Your task to perform on an android device: open app "Adobe Acrobat Reader: Edit PDF" (install if not already installed) and enter user name: "arthritis@inbox.com" and password: "scythes" Image 0: 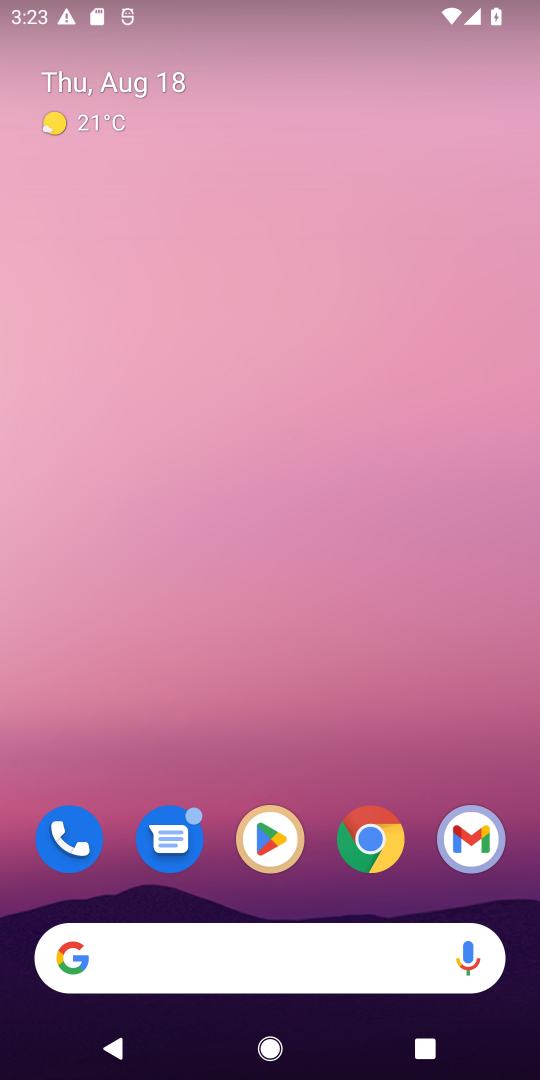
Step 0: click (277, 848)
Your task to perform on an android device: open app "Adobe Acrobat Reader: Edit PDF" (install if not already installed) and enter user name: "arthritis@inbox.com" and password: "scythes" Image 1: 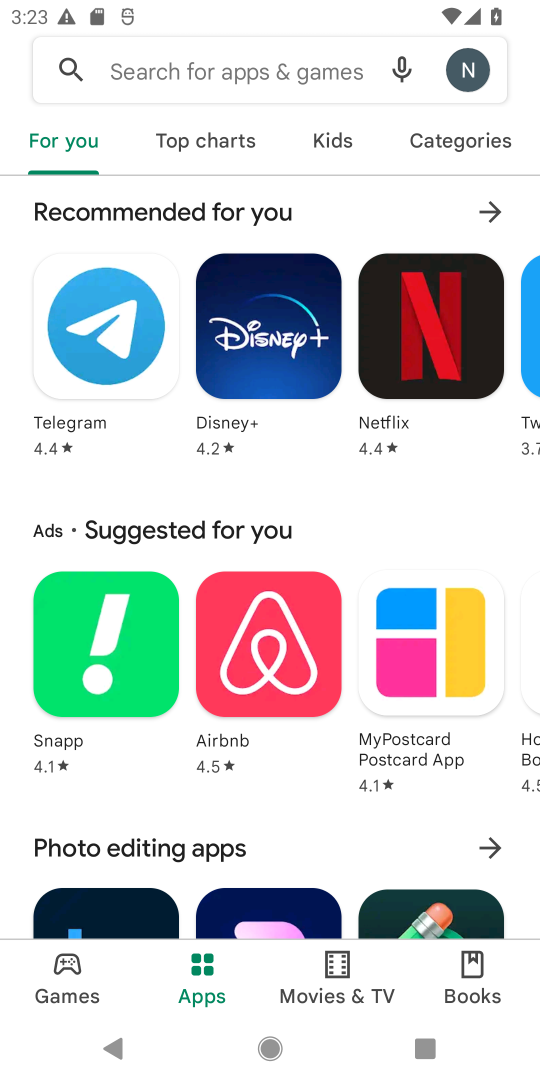
Step 1: click (147, 75)
Your task to perform on an android device: open app "Adobe Acrobat Reader: Edit PDF" (install if not already installed) and enter user name: "arthritis@inbox.com" and password: "scythes" Image 2: 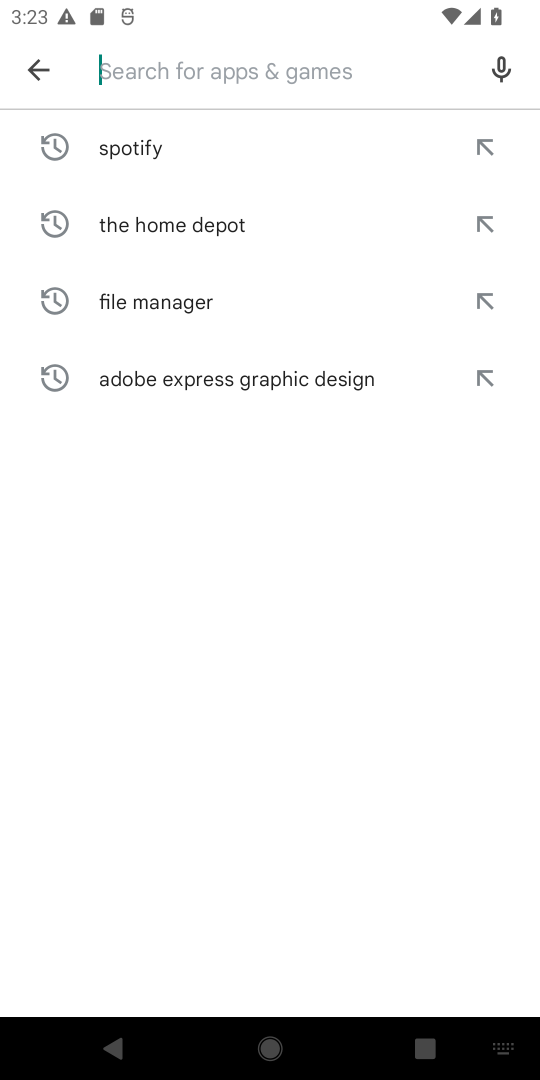
Step 2: type "Adobe Acrobat Reader: Edit PDF"
Your task to perform on an android device: open app "Adobe Acrobat Reader: Edit PDF" (install if not already installed) and enter user name: "arthritis@inbox.com" and password: "scythes" Image 3: 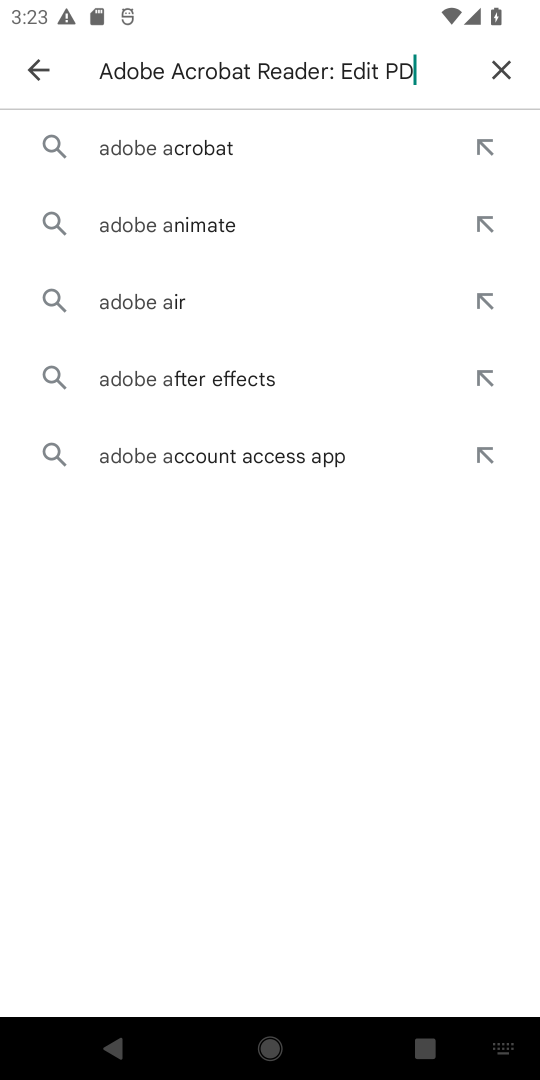
Step 3: type ""
Your task to perform on an android device: open app "Adobe Acrobat Reader: Edit PDF" (install if not already installed) and enter user name: "arthritis@inbox.com" and password: "scythes" Image 4: 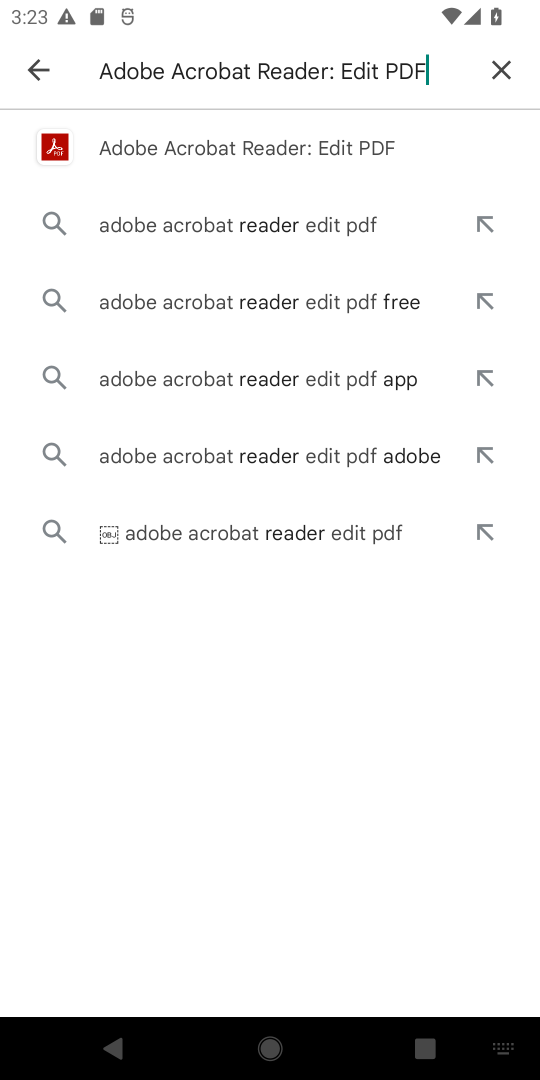
Step 4: click (130, 146)
Your task to perform on an android device: open app "Adobe Acrobat Reader: Edit PDF" (install if not already installed) and enter user name: "arthritis@inbox.com" and password: "scythes" Image 5: 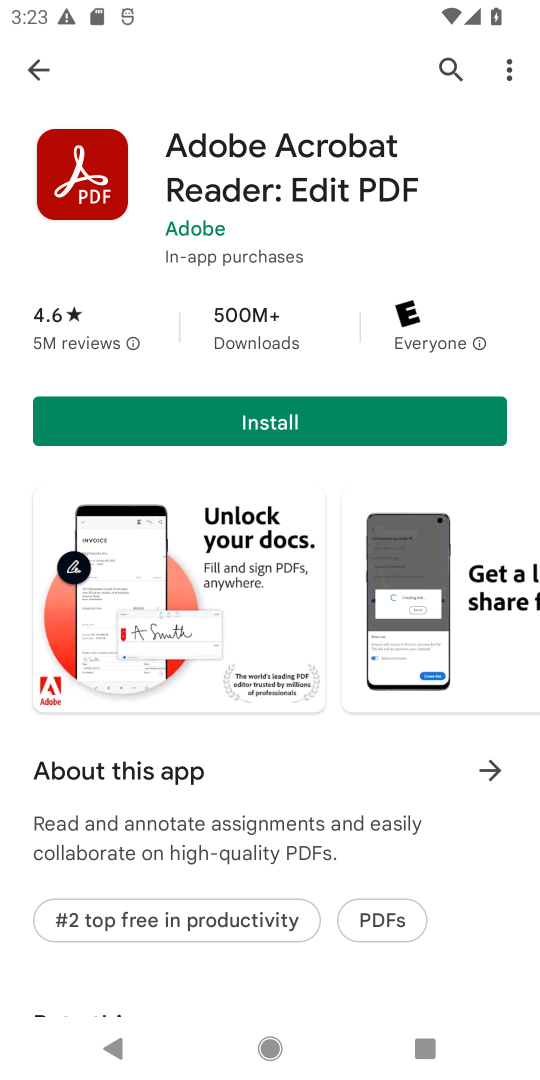
Step 5: click (252, 414)
Your task to perform on an android device: open app "Adobe Acrobat Reader: Edit PDF" (install if not already installed) and enter user name: "arthritis@inbox.com" and password: "scythes" Image 6: 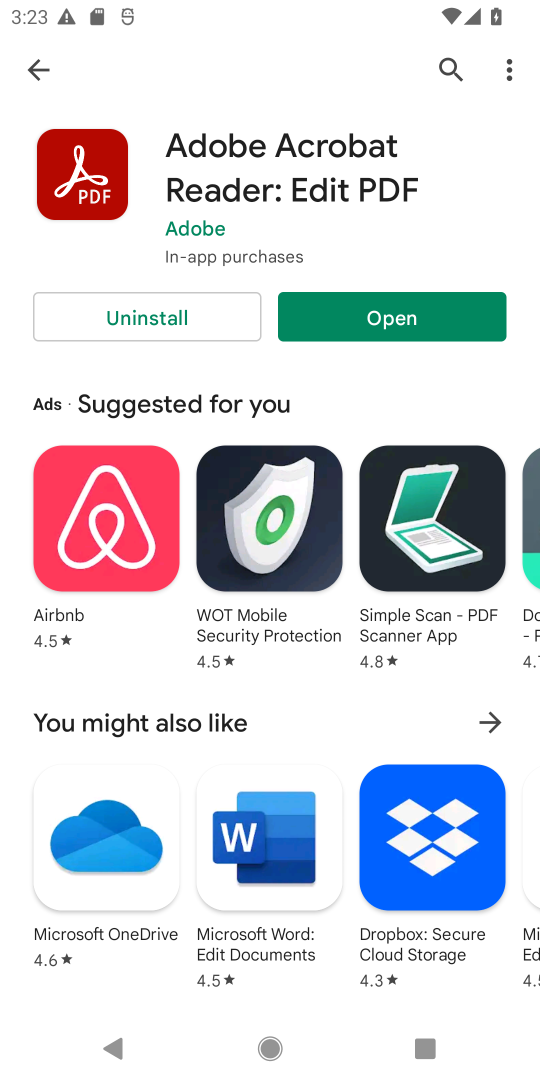
Step 6: click (329, 329)
Your task to perform on an android device: open app "Adobe Acrobat Reader: Edit PDF" (install if not already installed) and enter user name: "arthritis@inbox.com" and password: "scythes" Image 7: 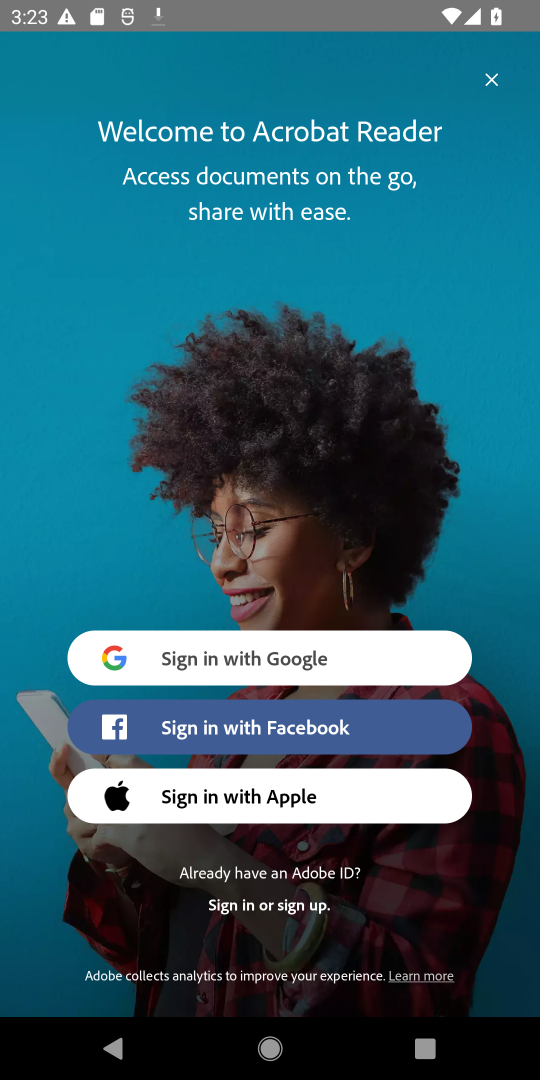
Step 7: click (231, 909)
Your task to perform on an android device: open app "Adobe Acrobat Reader: Edit PDF" (install if not already installed) and enter user name: "arthritis@inbox.com" and password: "scythes" Image 8: 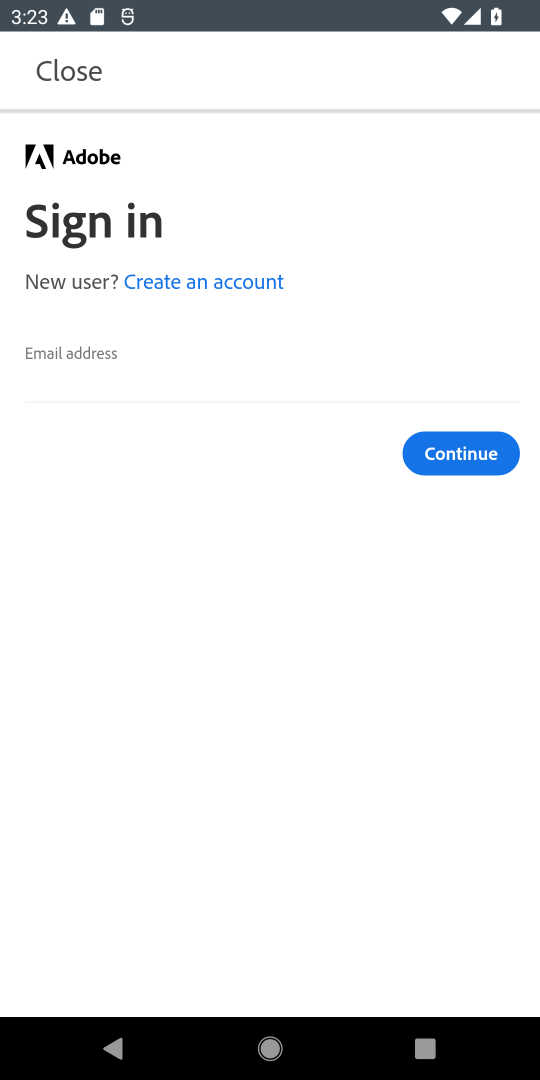
Step 8: click (68, 372)
Your task to perform on an android device: open app "Adobe Acrobat Reader: Edit PDF" (install if not already installed) and enter user name: "arthritis@inbox.com" and password: "scythes" Image 9: 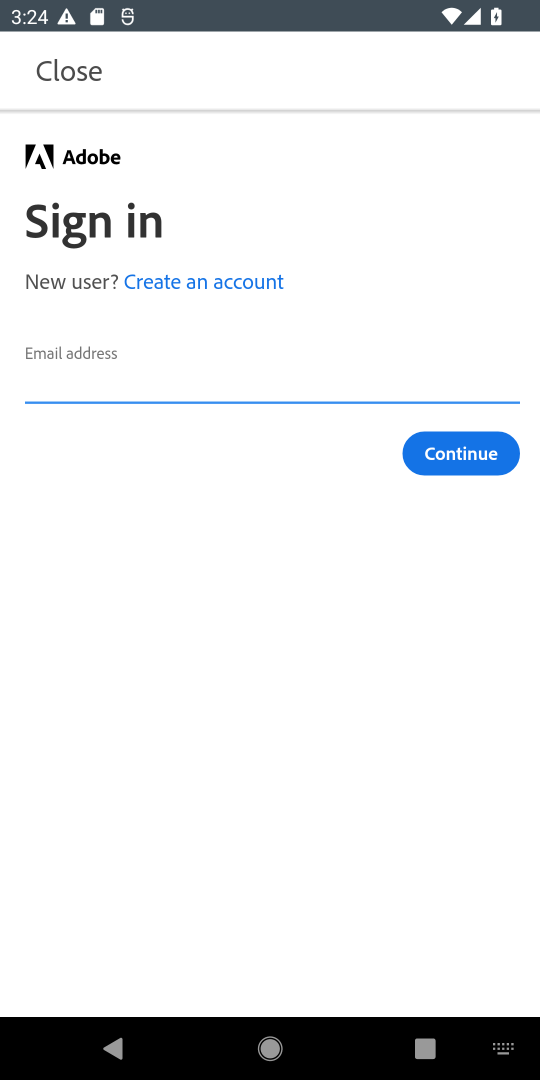
Step 9: type "arthritis@inbox.com"
Your task to perform on an android device: open app "Adobe Acrobat Reader: Edit PDF" (install if not already installed) and enter user name: "arthritis@inbox.com" and password: "scythes" Image 10: 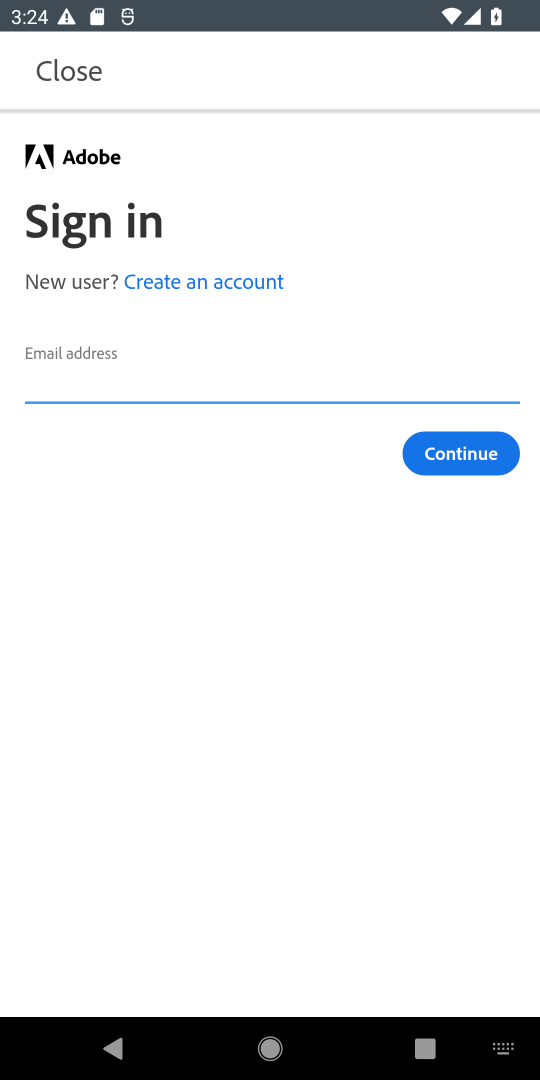
Step 10: type ""
Your task to perform on an android device: open app "Adobe Acrobat Reader: Edit PDF" (install if not already installed) and enter user name: "arthritis@inbox.com" and password: "scythes" Image 11: 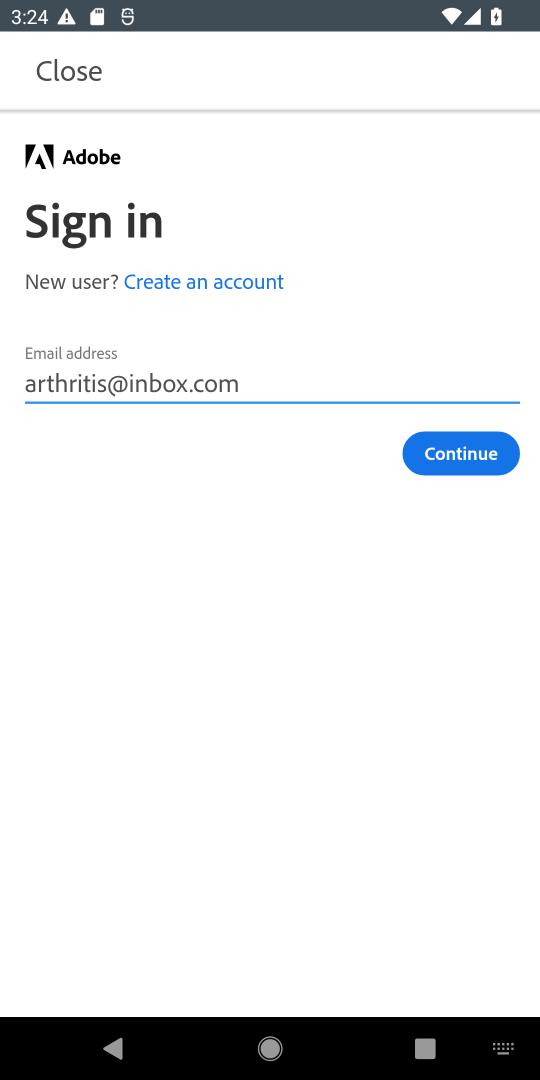
Step 11: click (463, 439)
Your task to perform on an android device: open app "Adobe Acrobat Reader: Edit PDF" (install if not already installed) and enter user name: "arthritis@inbox.com" and password: "scythes" Image 12: 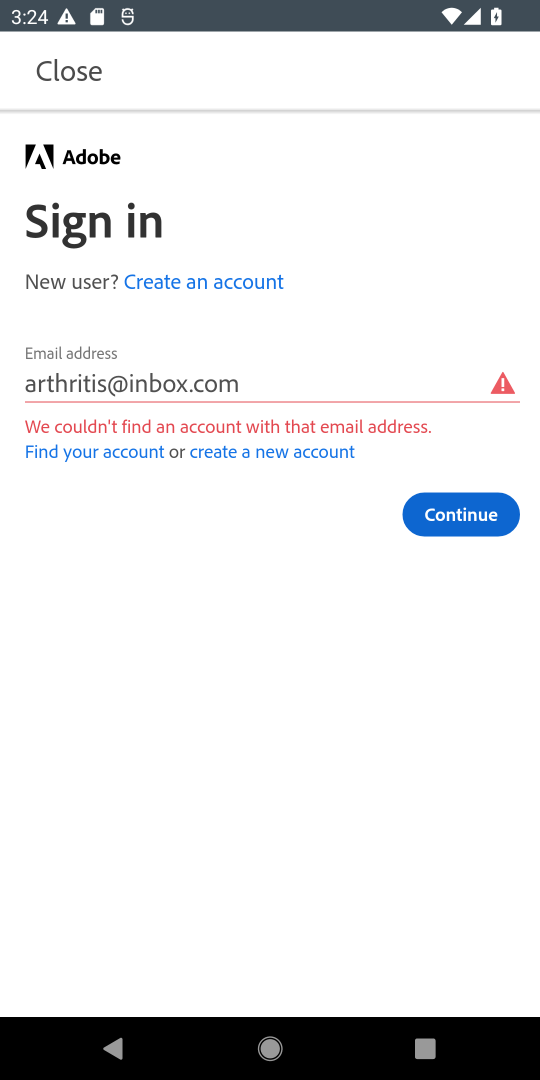
Step 12: click (461, 492)
Your task to perform on an android device: open app "Adobe Acrobat Reader: Edit PDF" (install if not already installed) and enter user name: "arthritis@inbox.com" and password: "scythes" Image 13: 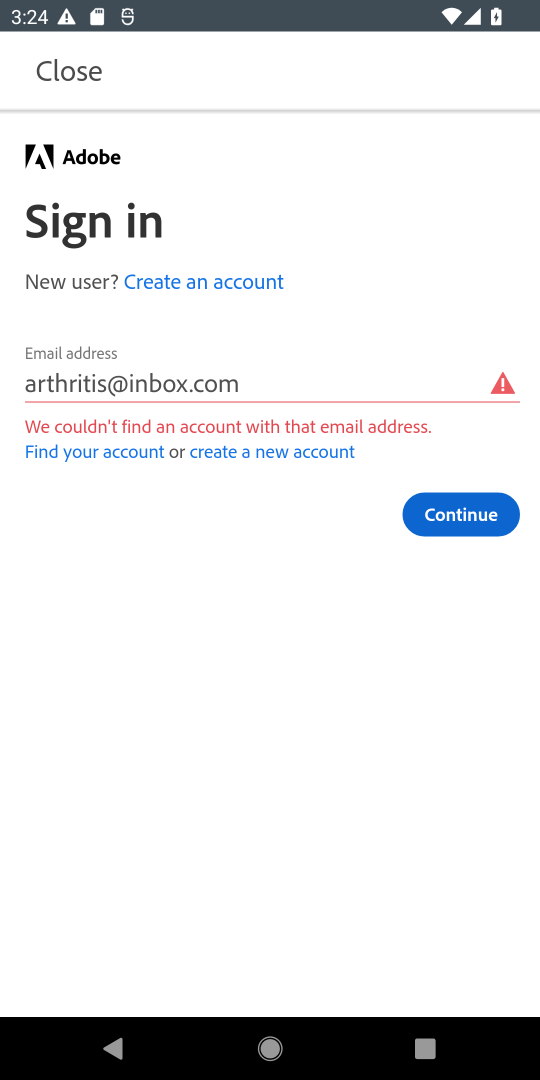
Step 13: task complete